Your task to perform on an android device: What's the weather? Image 0: 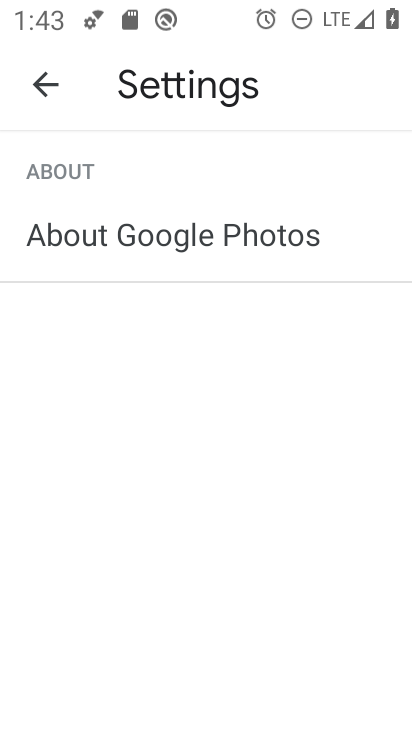
Step 0: press home button
Your task to perform on an android device: What's the weather? Image 1: 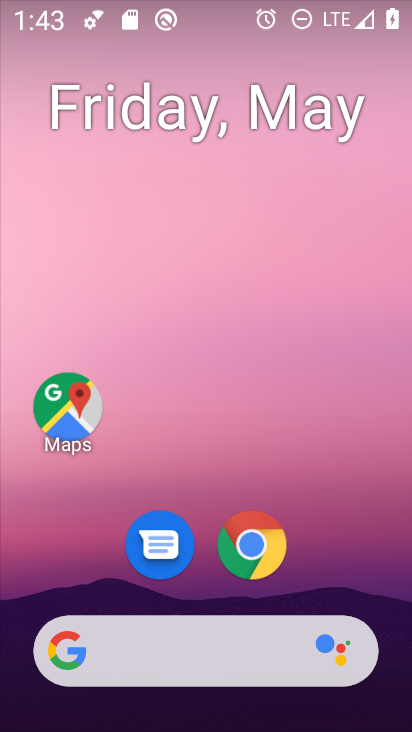
Step 1: click (258, 541)
Your task to perform on an android device: What's the weather? Image 2: 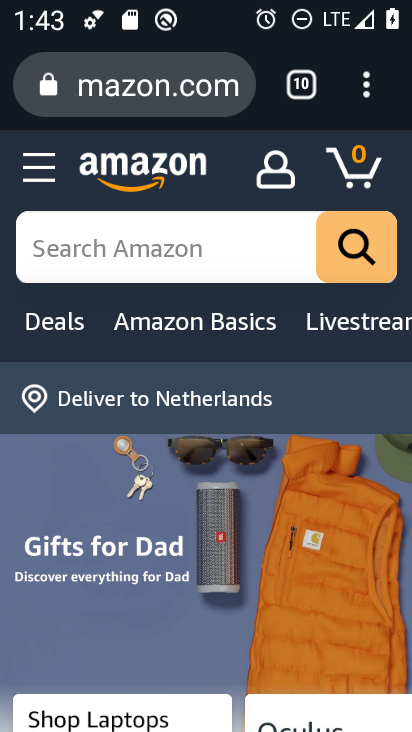
Step 2: click (380, 87)
Your task to perform on an android device: What's the weather? Image 3: 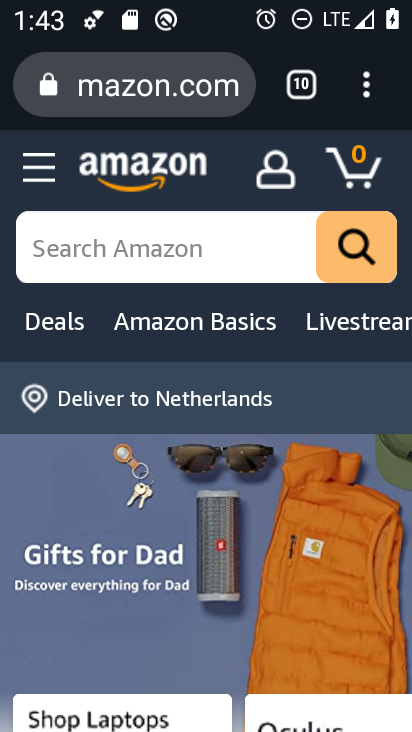
Step 3: click (373, 68)
Your task to perform on an android device: What's the weather? Image 4: 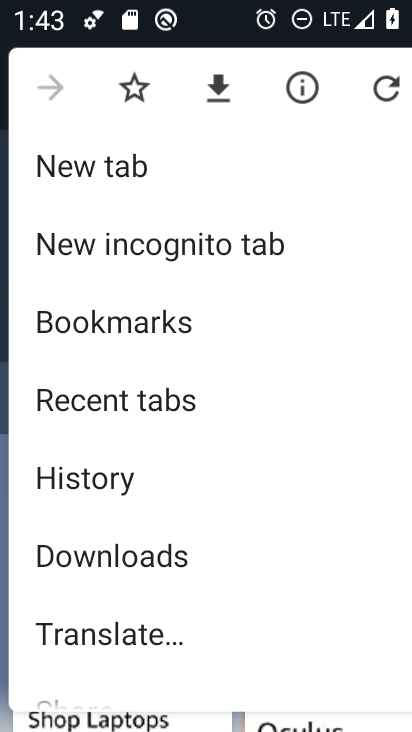
Step 4: click (99, 165)
Your task to perform on an android device: What's the weather? Image 5: 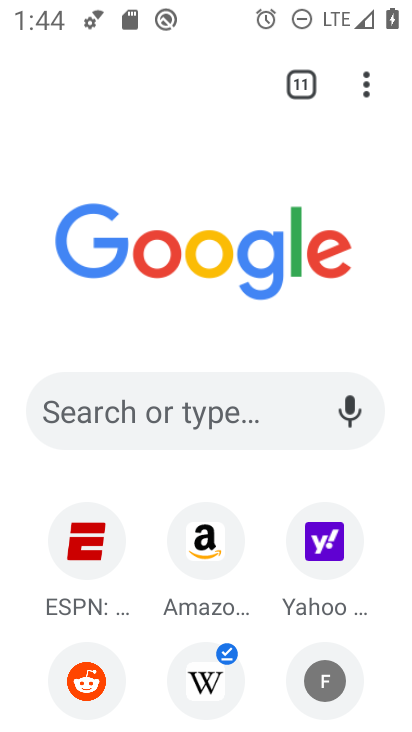
Step 5: click (173, 394)
Your task to perform on an android device: What's the weather? Image 6: 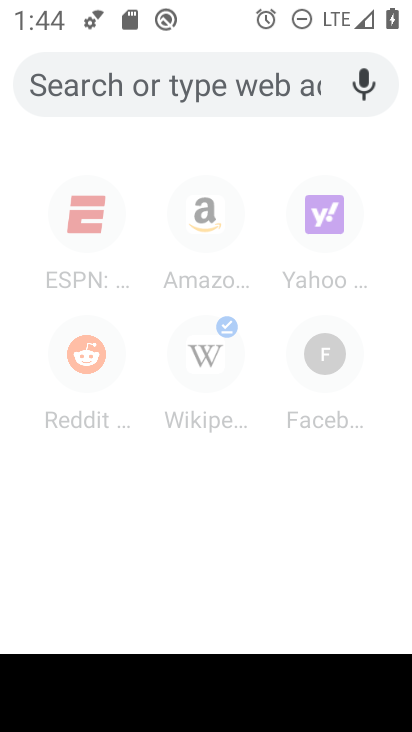
Step 6: type "What's the weather?"
Your task to perform on an android device: What's the weather? Image 7: 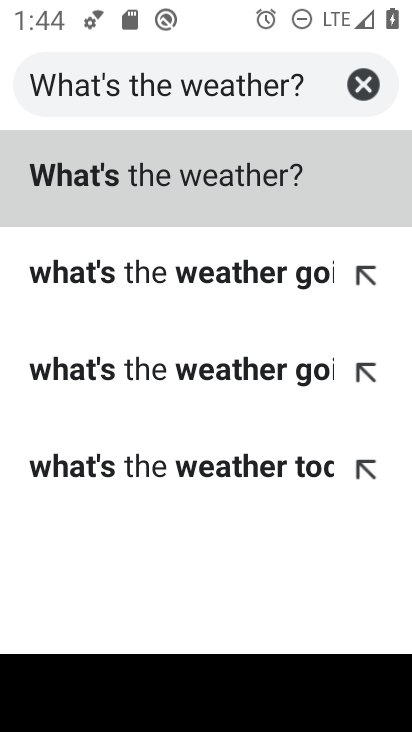
Step 7: click (248, 187)
Your task to perform on an android device: What's the weather? Image 8: 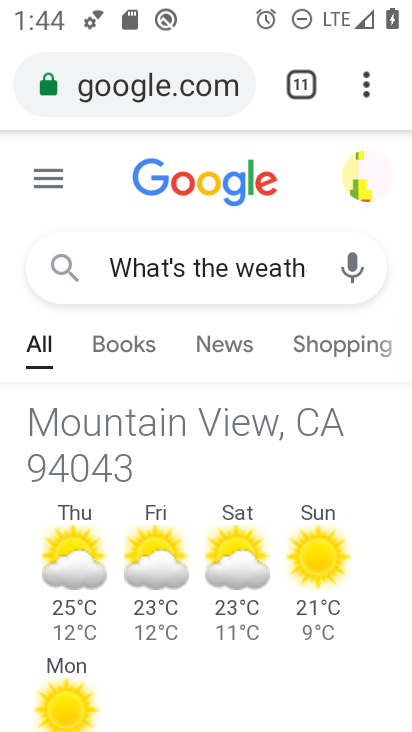
Step 8: task complete